Your task to perform on an android device: Open sound settings Image 0: 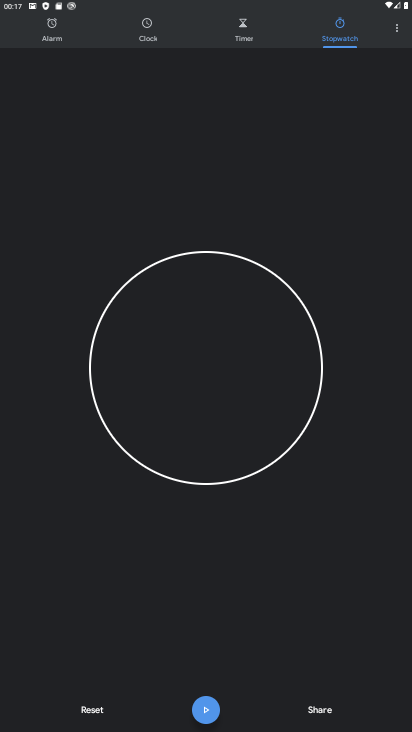
Step 0: press home button
Your task to perform on an android device: Open sound settings Image 1: 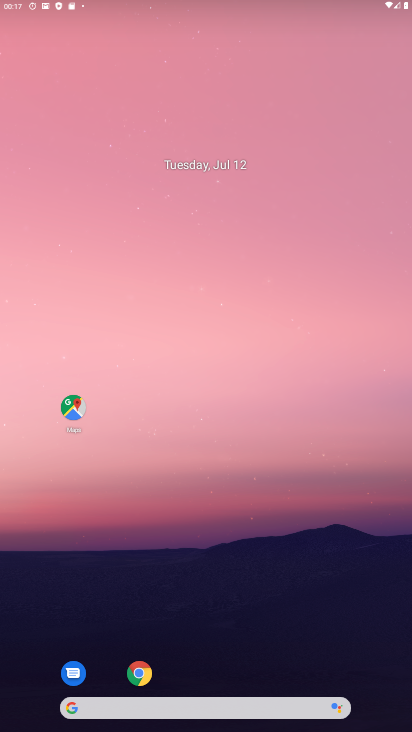
Step 1: drag from (299, 600) to (312, 48)
Your task to perform on an android device: Open sound settings Image 2: 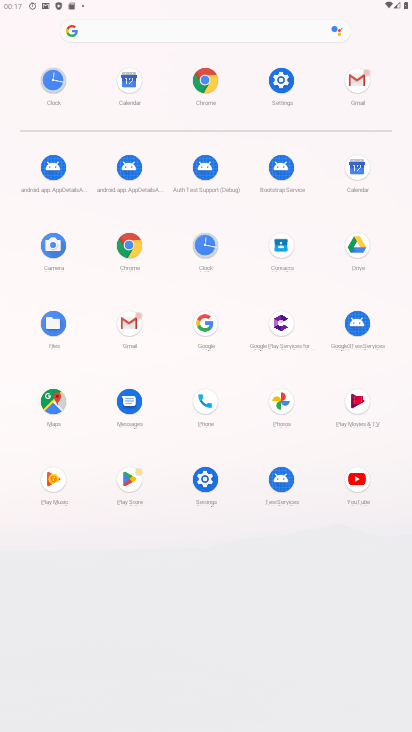
Step 2: click (284, 78)
Your task to perform on an android device: Open sound settings Image 3: 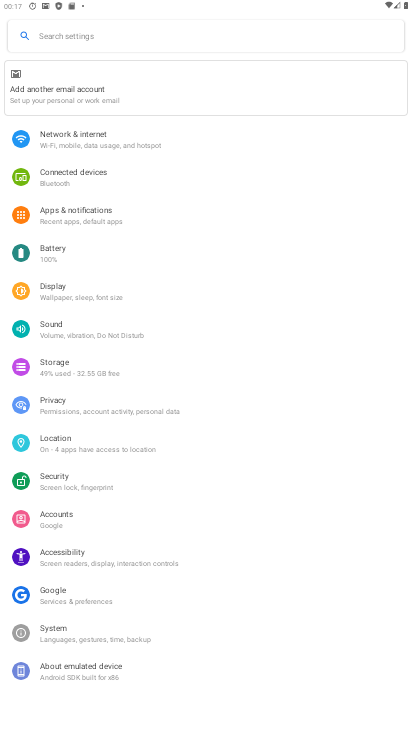
Step 3: click (53, 323)
Your task to perform on an android device: Open sound settings Image 4: 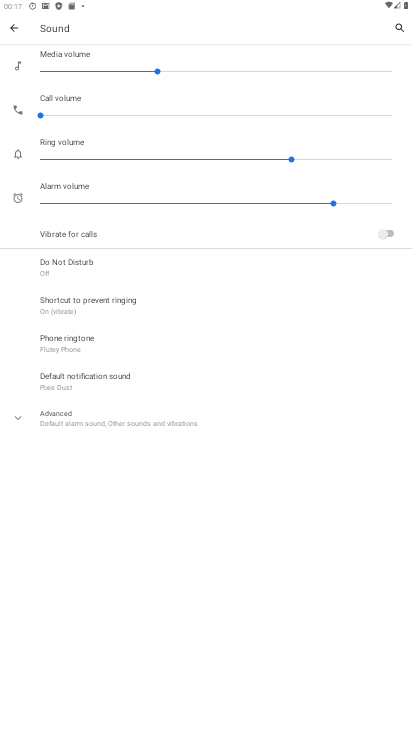
Step 4: task complete